Your task to perform on an android device: open chrome privacy settings Image 0: 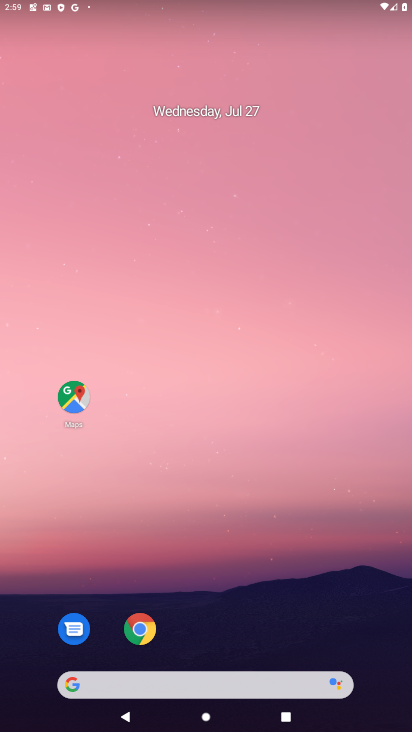
Step 0: drag from (219, 648) to (231, 11)
Your task to perform on an android device: open chrome privacy settings Image 1: 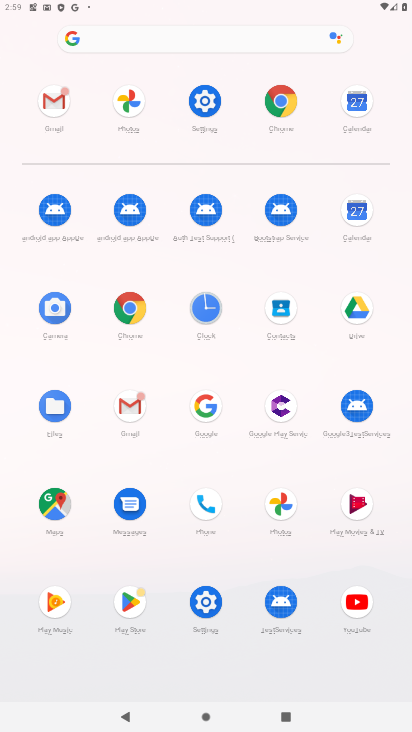
Step 1: click (284, 94)
Your task to perform on an android device: open chrome privacy settings Image 2: 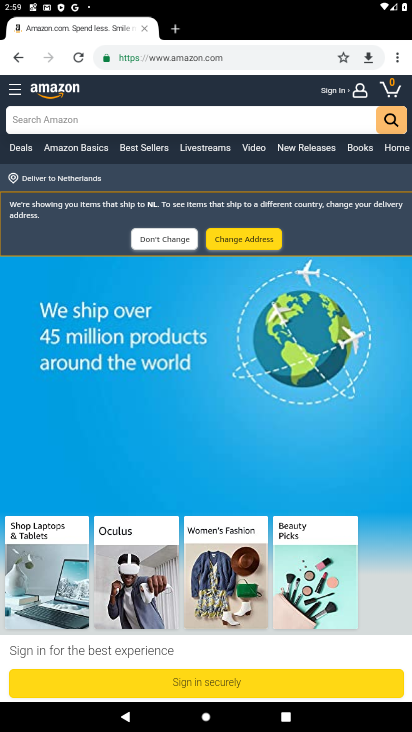
Step 2: task complete